Your task to perform on an android device: refresh tabs in the chrome app Image 0: 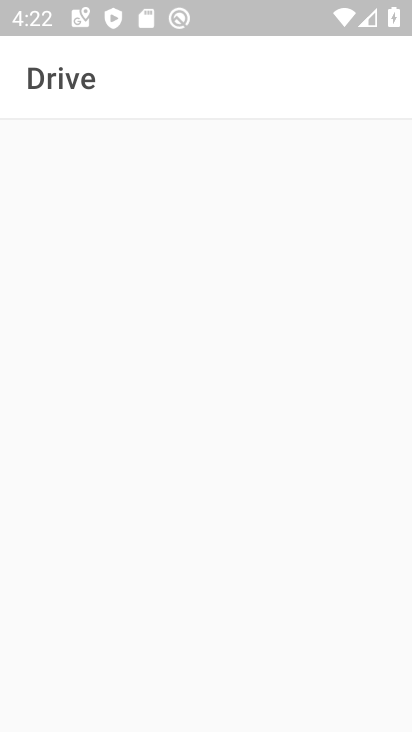
Step 0: press back button
Your task to perform on an android device: refresh tabs in the chrome app Image 1: 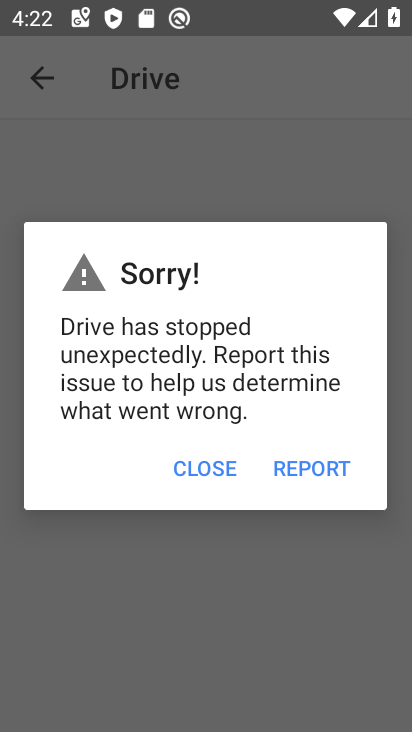
Step 1: click (219, 463)
Your task to perform on an android device: refresh tabs in the chrome app Image 2: 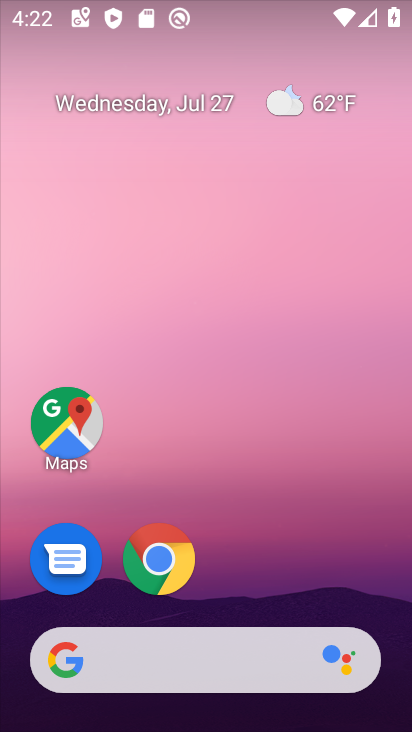
Step 2: click (165, 559)
Your task to perform on an android device: refresh tabs in the chrome app Image 3: 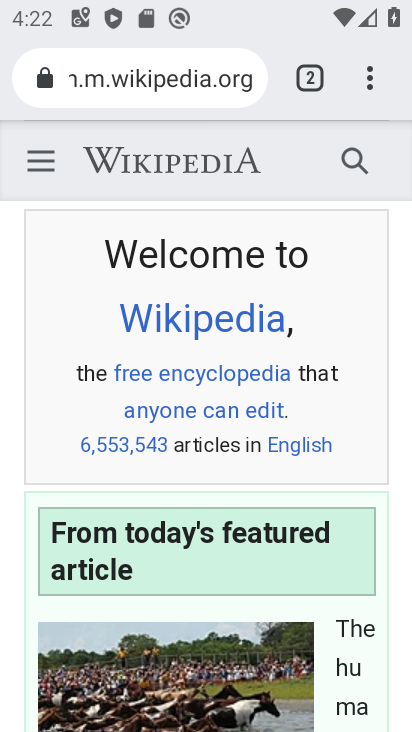
Step 3: click (365, 79)
Your task to perform on an android device: refresh tabs in the chrome app Image 4: 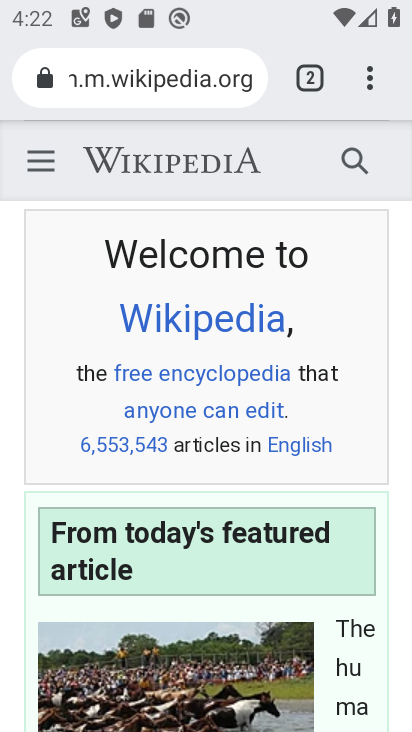
Step 4: task complete